Your task to perform on an android device: open wifi settings Image 0: 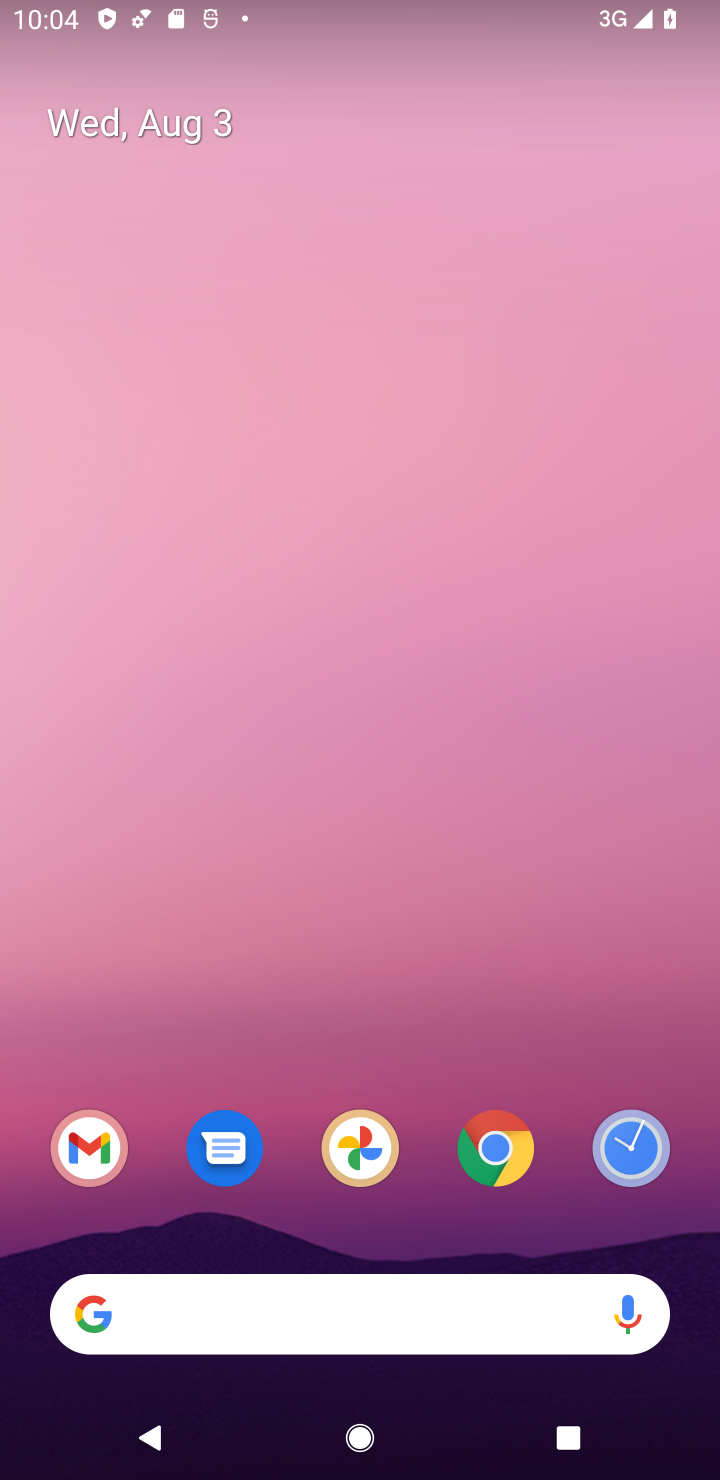
Step 0: drag from (467, 1036) to (410, 180)
Your task to perform on an android device: open wifi settings Image 1: 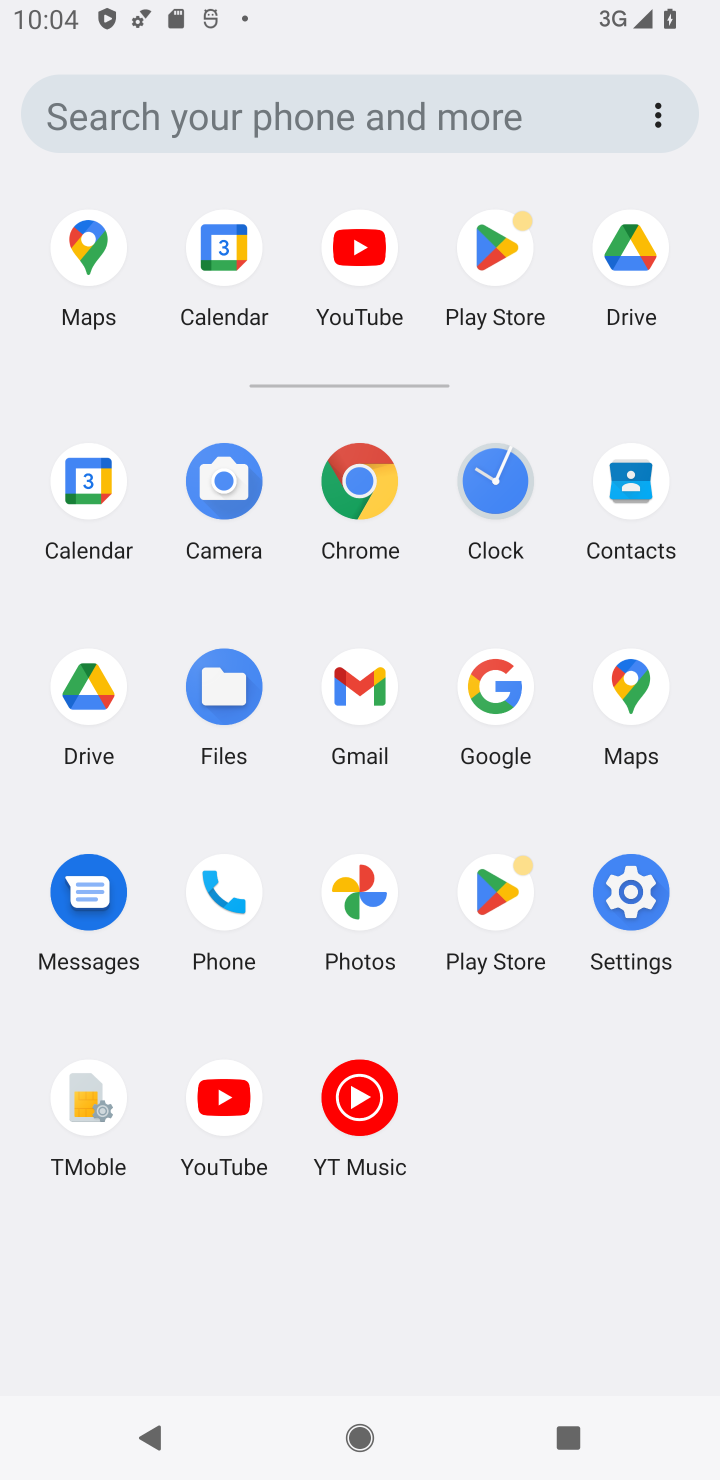
Step 1: click (645, 896)
Your task to perform on an android device: open wifi settings Image 2: 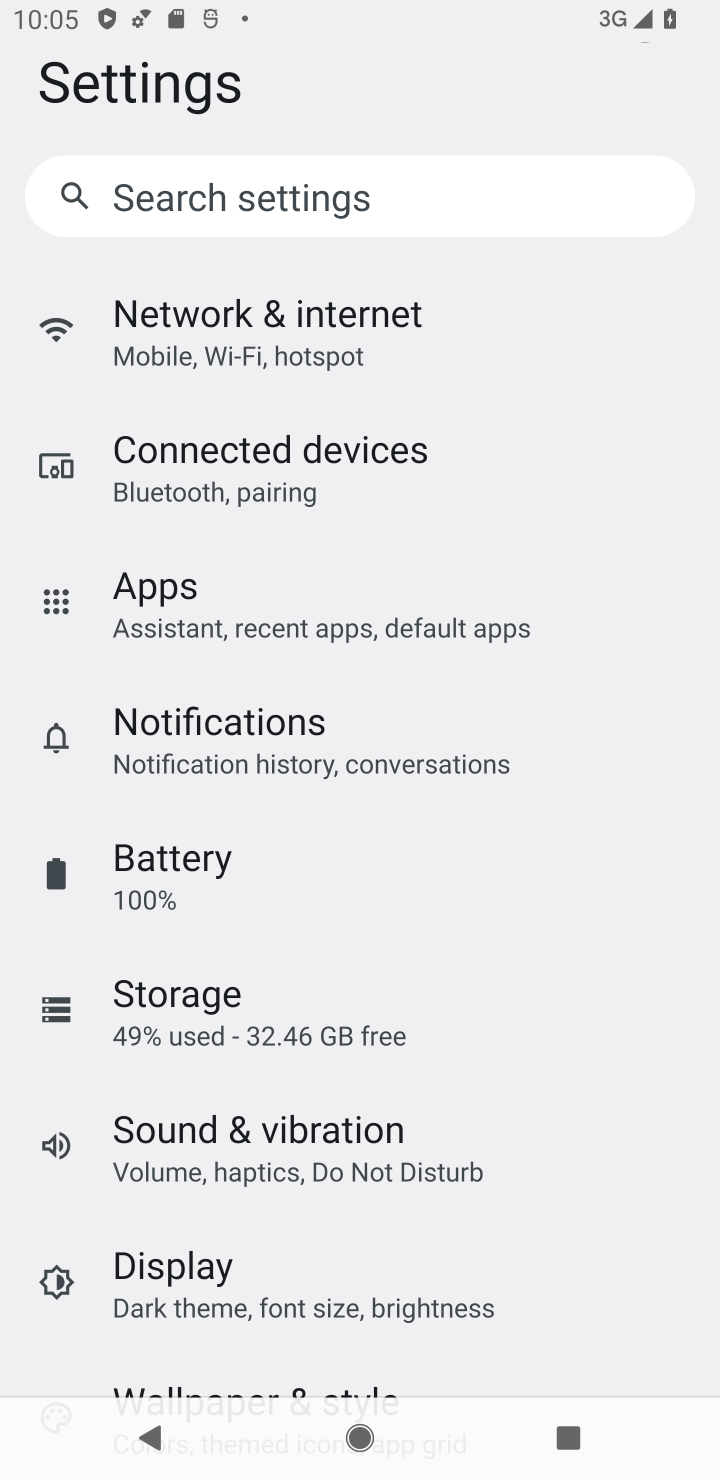
Step 2: task complete